Your task to perform on an android device: What's the weather going to be tomorrow? Image 0: 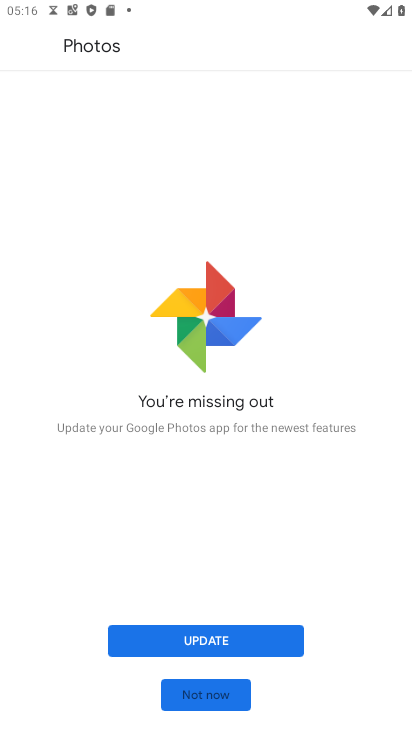
Step 0: press home button
Your task to perform on an android device: What's the weather going to be tomorrow? Image 1: 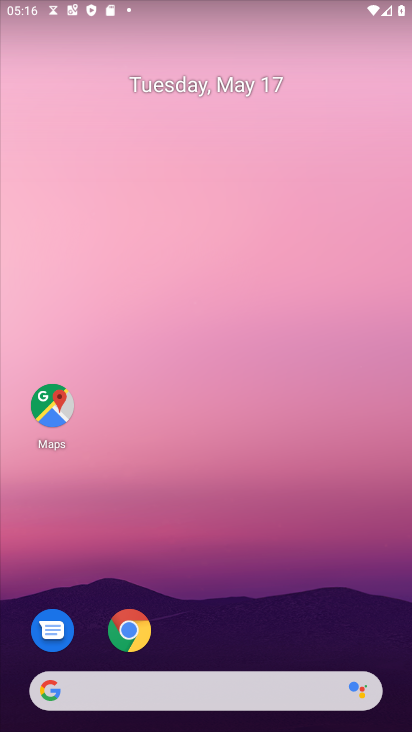
Step 1: drag from (227, 642) to (212, 314)
Your task to perform on an android device: What's the weather going to be tomorrow? Image 2: 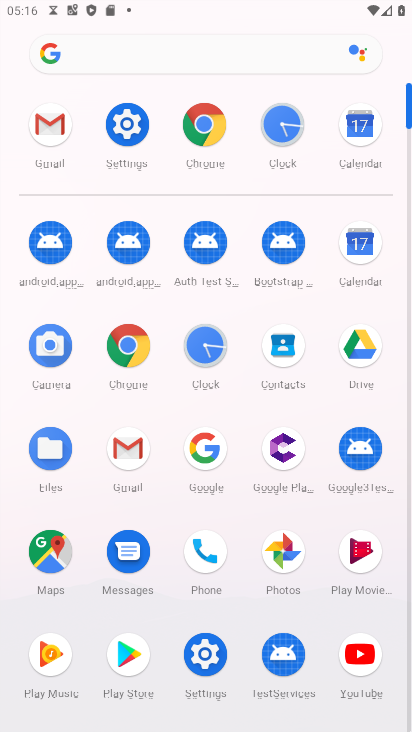
Step 2: click (196, 120)
Your task to perform on an android device: What's the weather going to be tomorrow? Image 3: 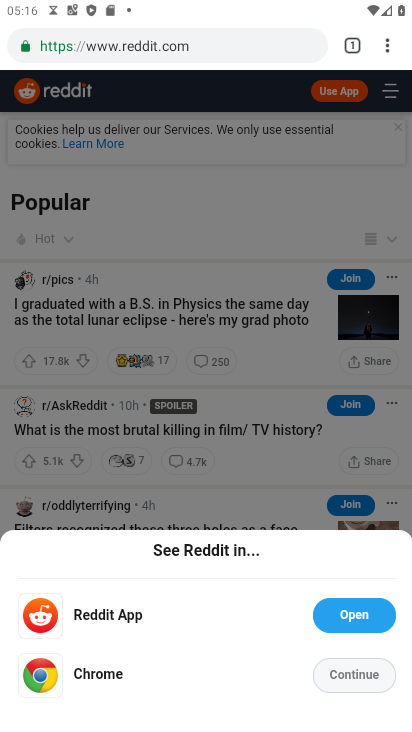
Step 3: click (231, 45)
Your task to perform on an android device: What's the weather going to be tomorrow? Image 4: 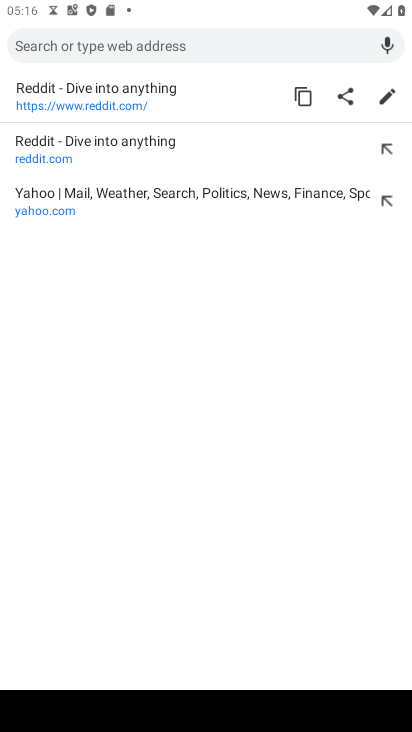
Step 4: type "What's the weather going to be tomorrow?"
Your task to perform on an android device: What's the weather going to be tomorrow? Image 5: 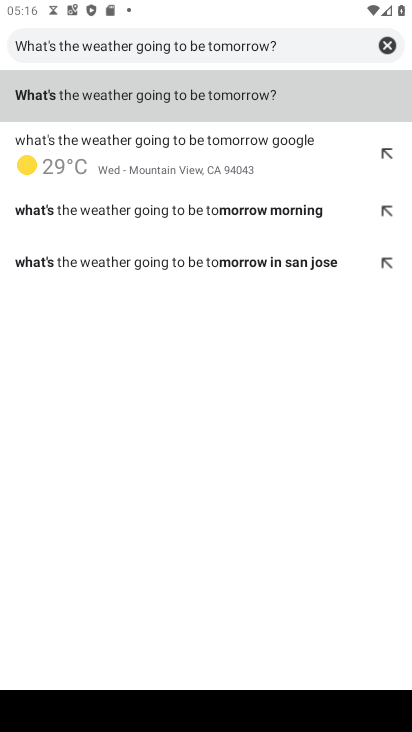
Step 5: click (142, 92)
Your task to perform on an android device: What's the weather going to be tomorrow? Image 6: 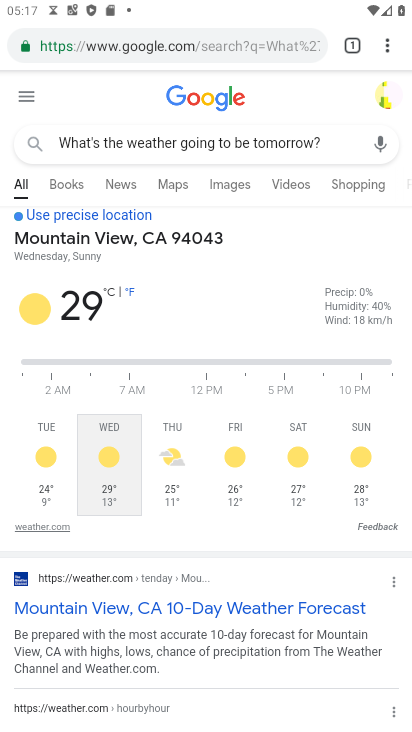
Step 6: task complete